Your task to perform on an android device: Open Google Chrome Image 0: 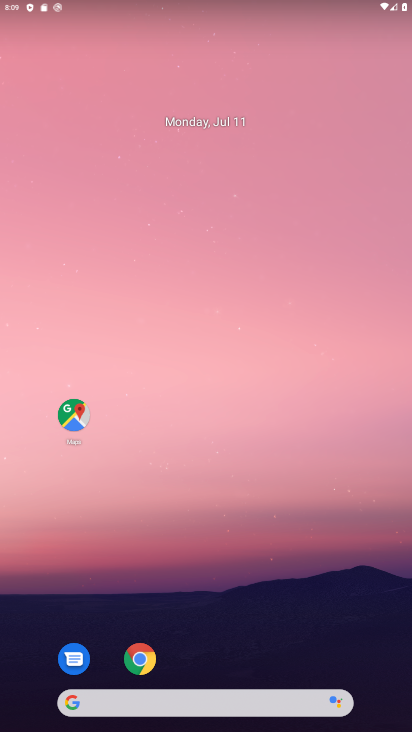
Step 0: click (138, 659)
Your task to perform on an android device: Open Google Chrome Image 1: 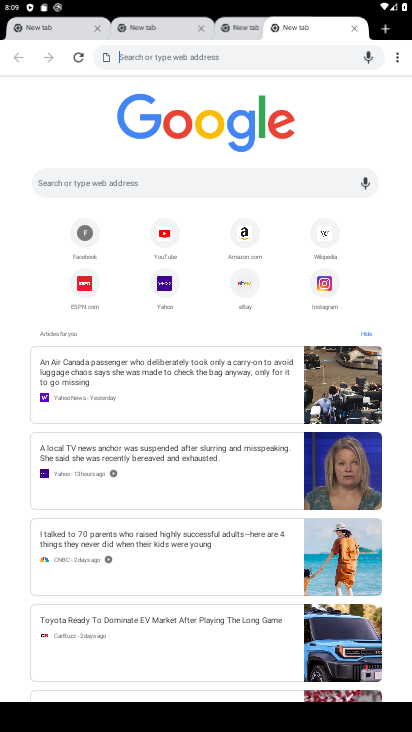
Step 1: task complete